Your task to perform on an android device: View the shopping cart on bestbuy.com. Search for razer thresher on bestbuy.com, select the first entry, and add it to the cart. Image 0: 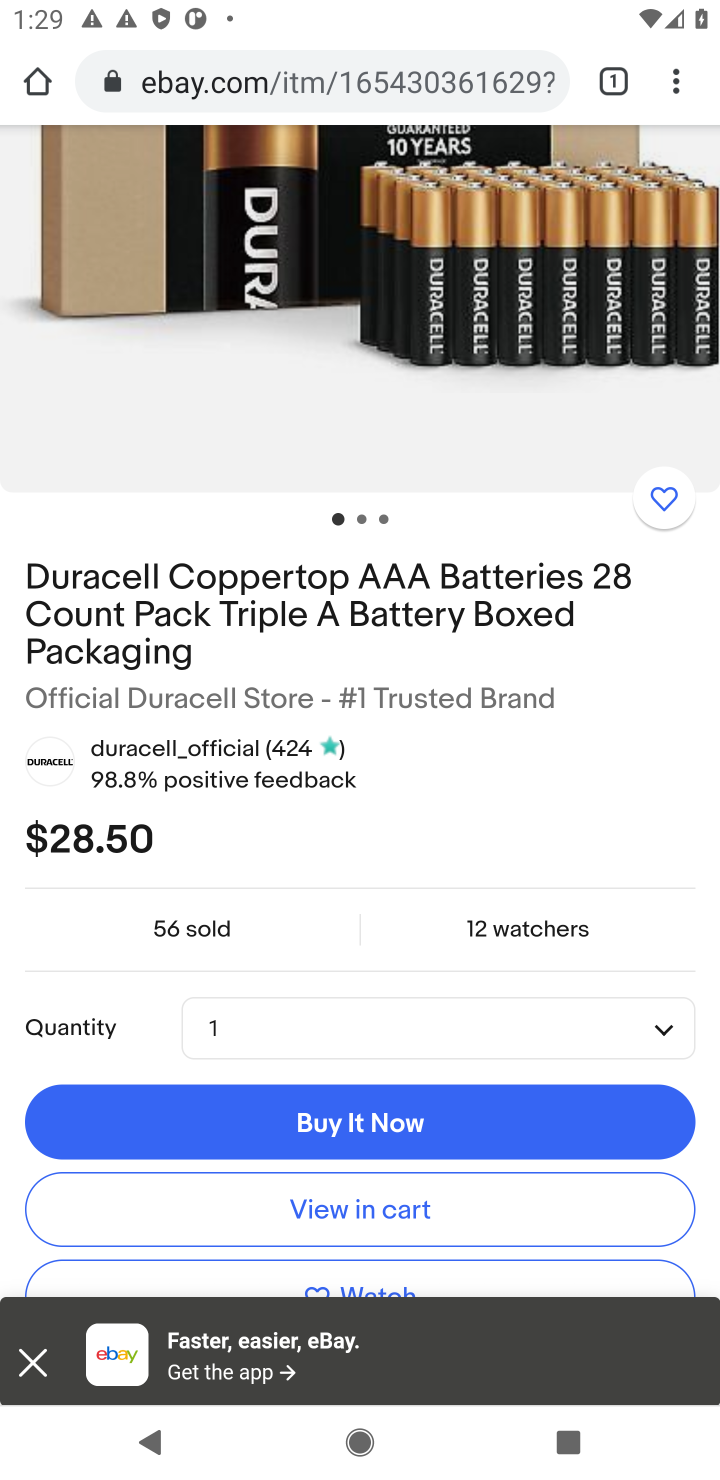
Step 0: press home button
Your task to perform on an android device: View the shopping cart on bestbuy.com. Search for razer thresher on bestbuy.com, select the first entry, and add it to the cart. Image 1: 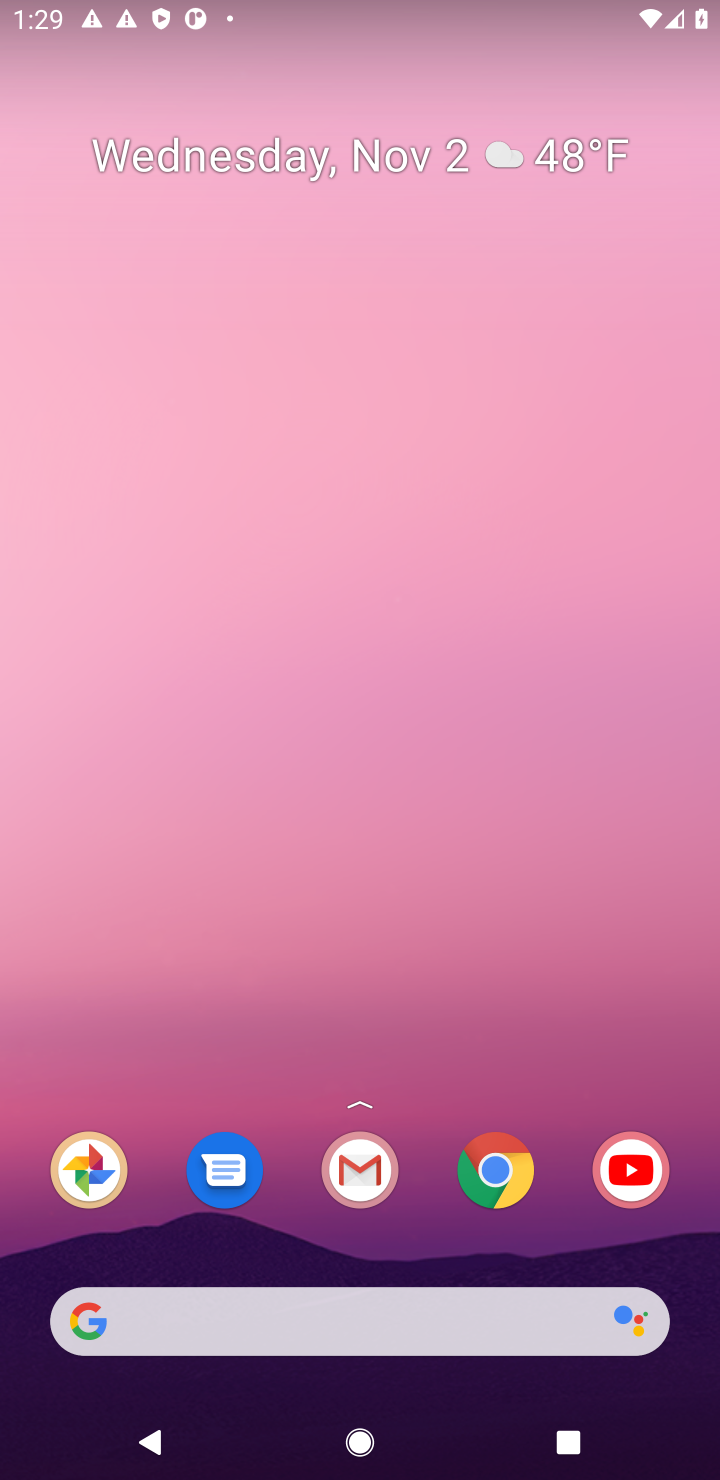
Step 1: drag from (321, 1237) to (402, 338)
Your task to perform on an android device: View the shopping cart on bestbuy.com. Search for razer thresher on bestbuy.com, select the first entry, and add it to the cart. Image 2: 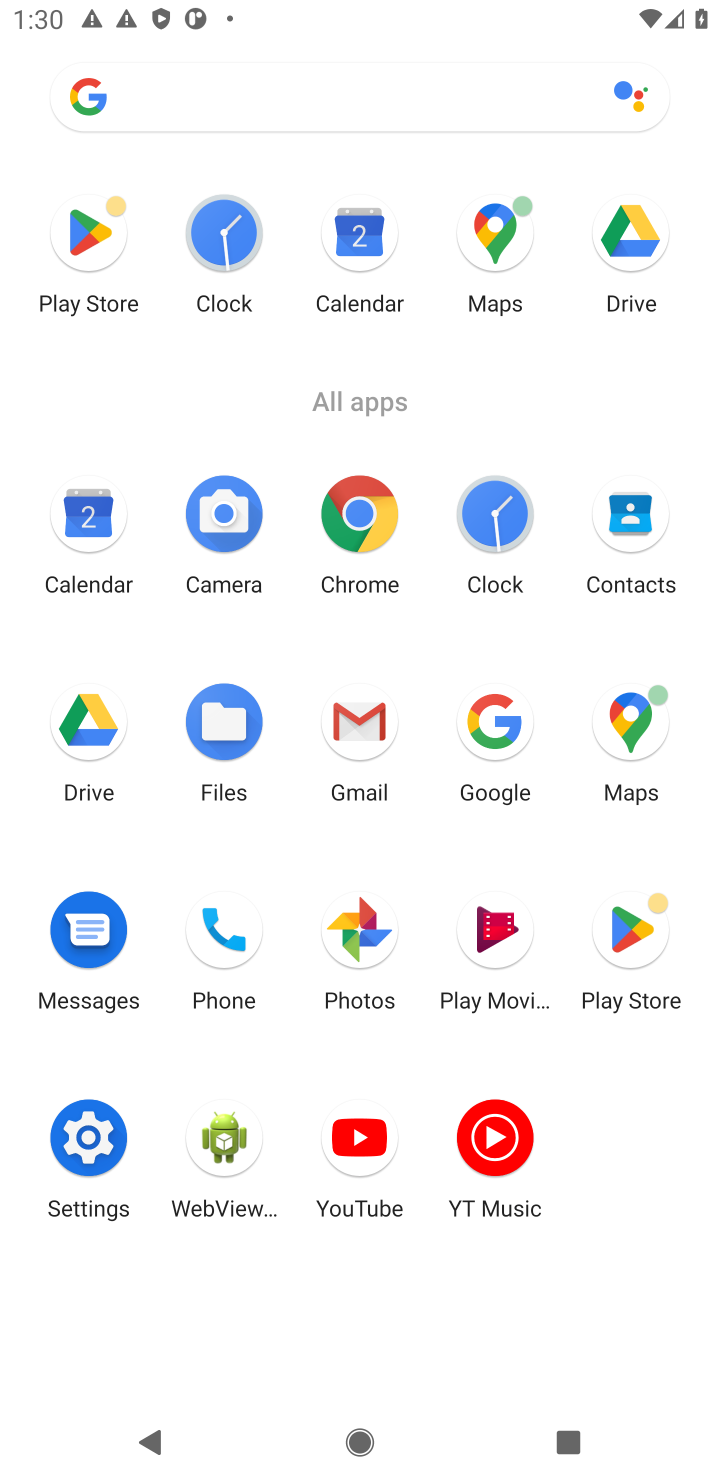
Step 2: click (501, 763)
Your task to perform on an android device: View the shopping cart on bestbuy.com. Search for razer thresher on bestbuy.com, select the first entry, and add it to the cart. Image 3: 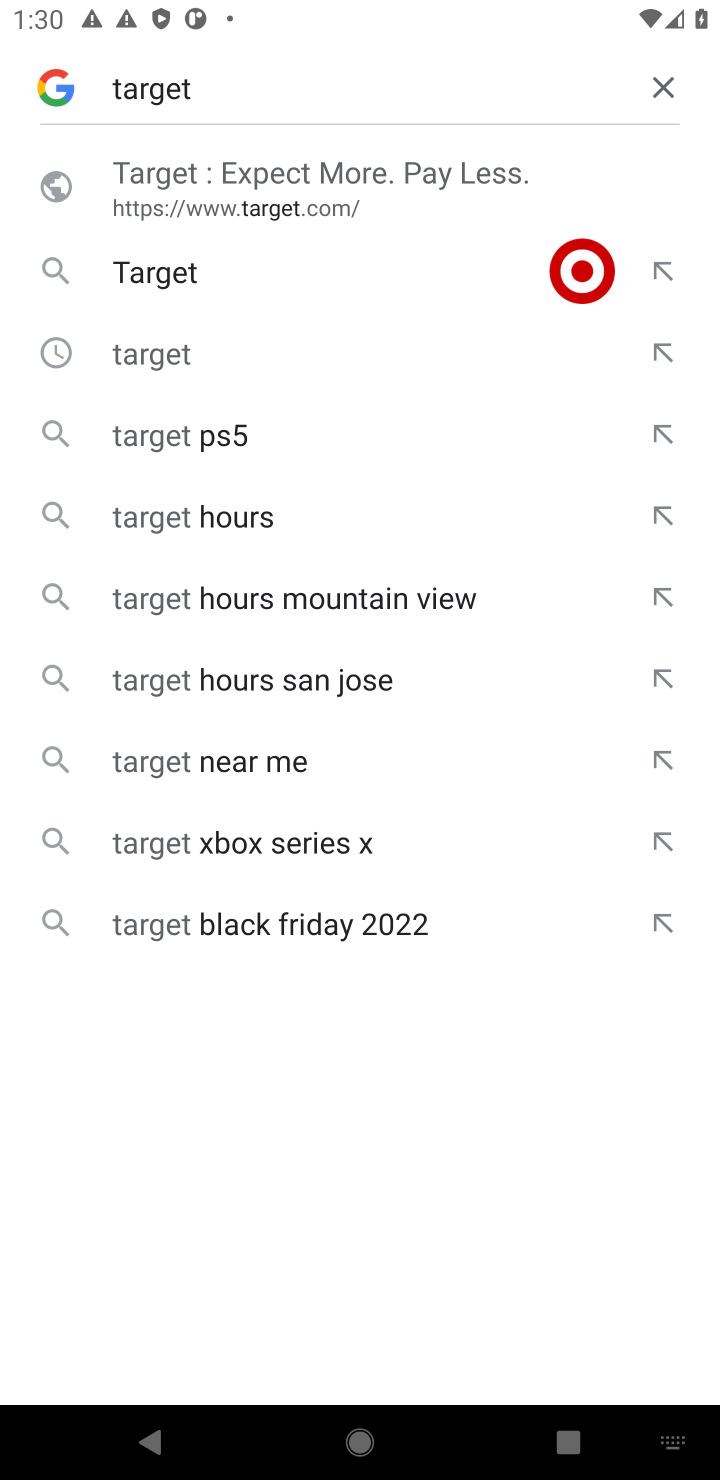
Step 3: click (654, 79)
Your task to perform on an android device: View the shopping cart on bestbuy.com. Search for razer thresher on bestbuy.com, select the first entry, and add it to the cart. Image 4: 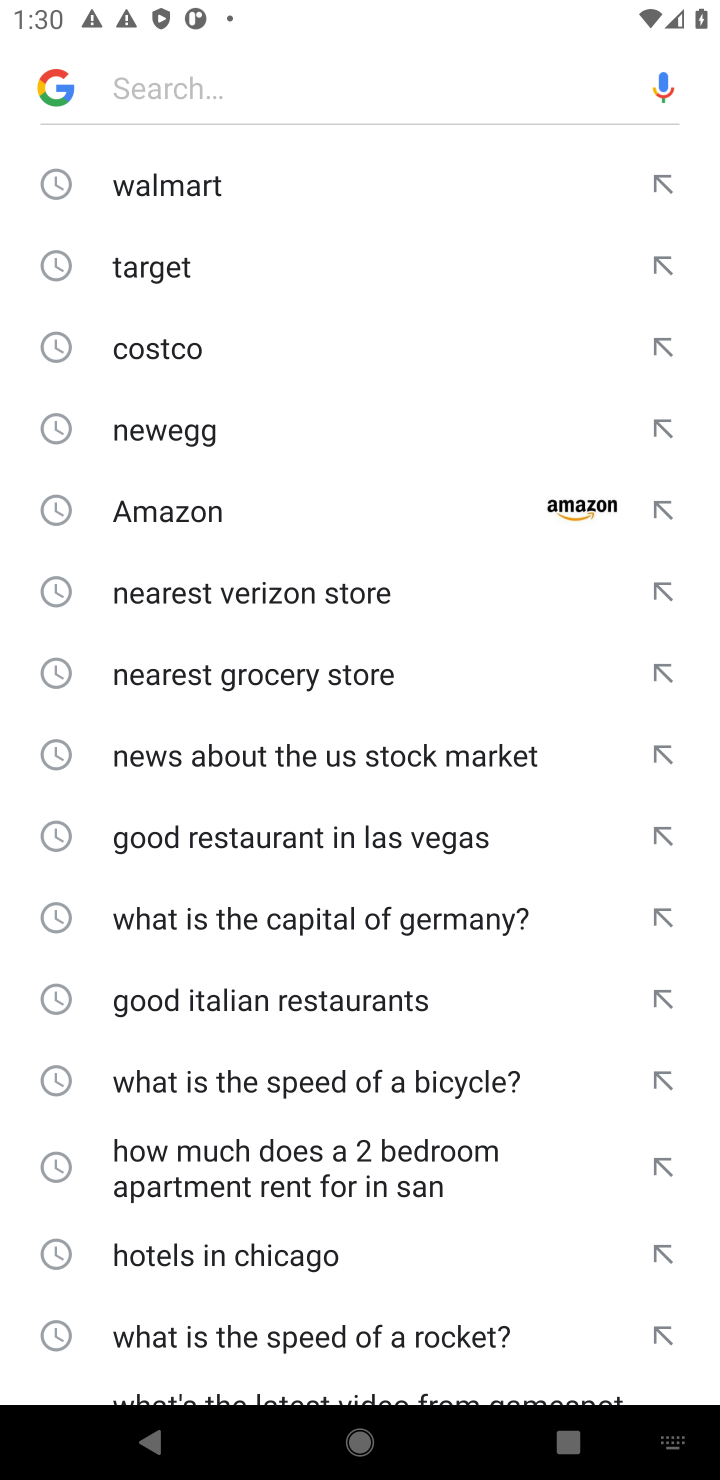
Step 4: type "bestbuy.com"
Your task to perform on an android device: View the shopping cart on bestbuy.com. Search for razer thresher on bestbuy.com, select the first entry, and add it to the cart. Image 5: 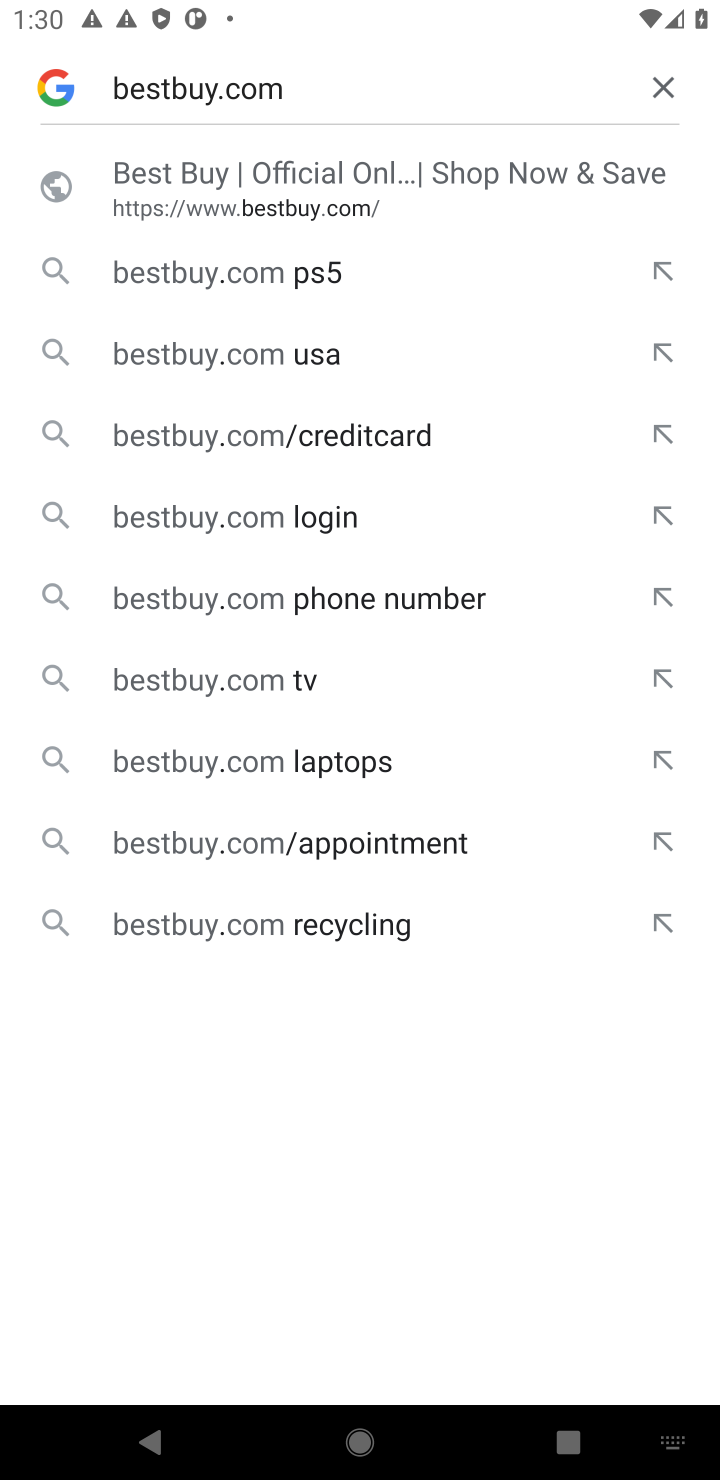
Step 5: click (297, 184)
Your task to perform on an android device: View the shopping cart on bestbuy.com. Search for razer thresher on bestbuy.com, select the first entry, and add it to the cart. Image 6: 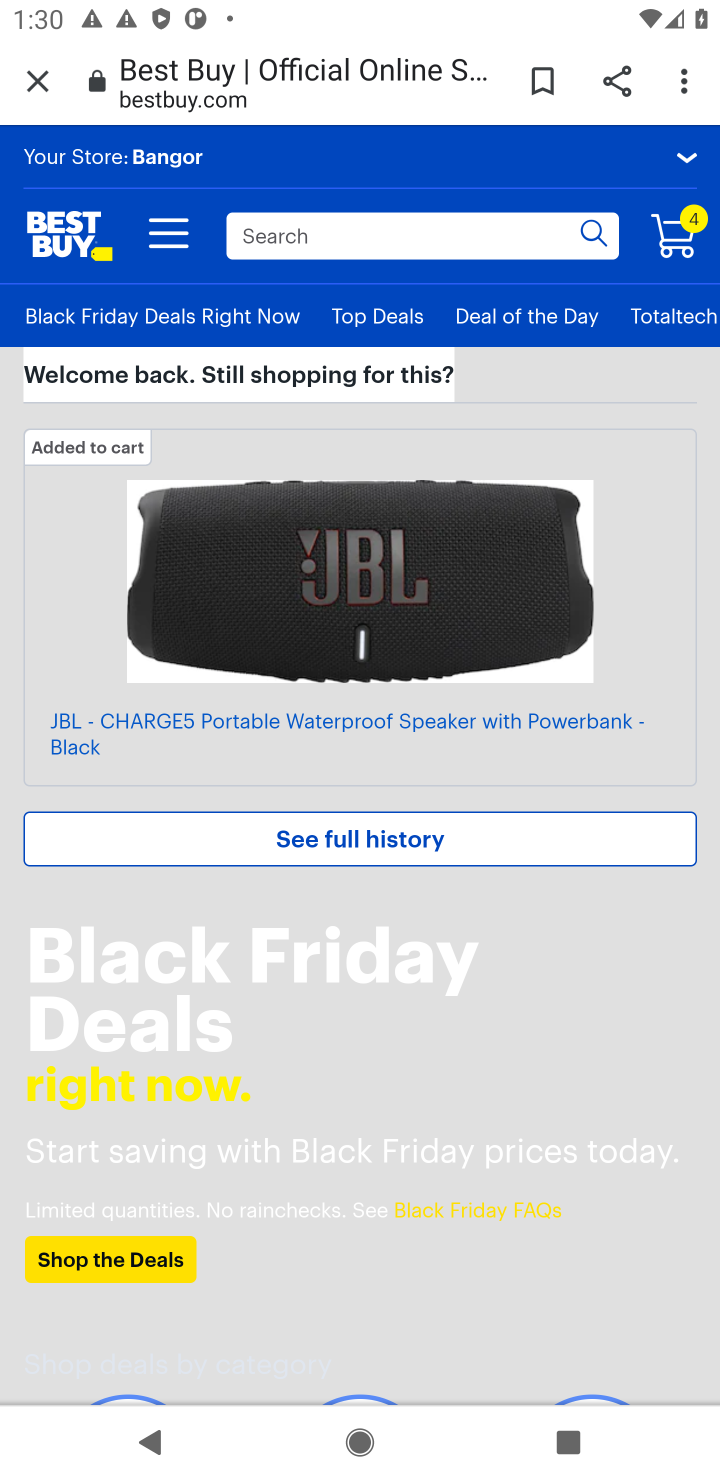
Step 6: click (503, 239)
Your task to perform on an android device: View the shopping cart on bestbuy.com. Search for razer thresher on bestbuy.com, select the first entry, and add it to the cart. Image 7: 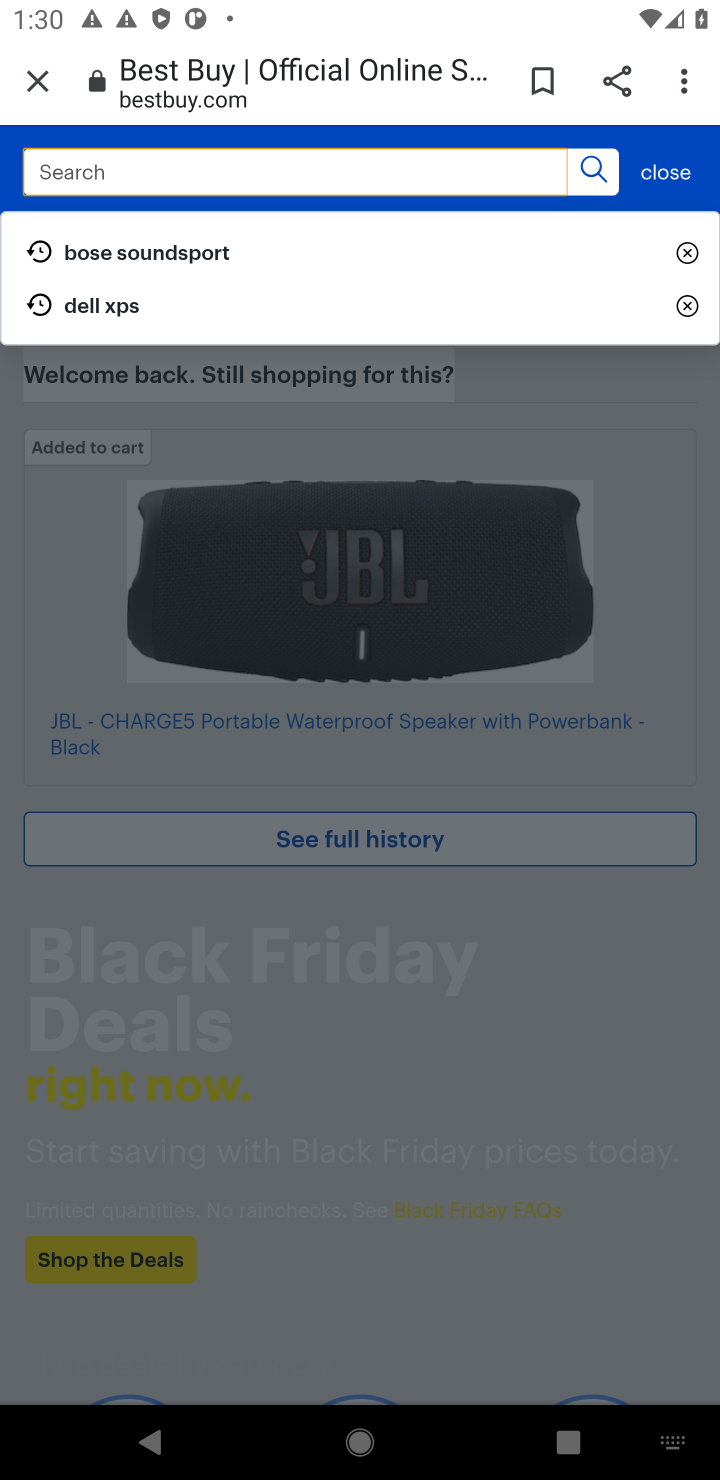
Step 7: type "razer thresher"
Your task to perform on an android device: View the shopping cart on bestbuy.com. Search for razer thresher on bestbuy.com, select the first entry, and add it to the cart. Image 8: 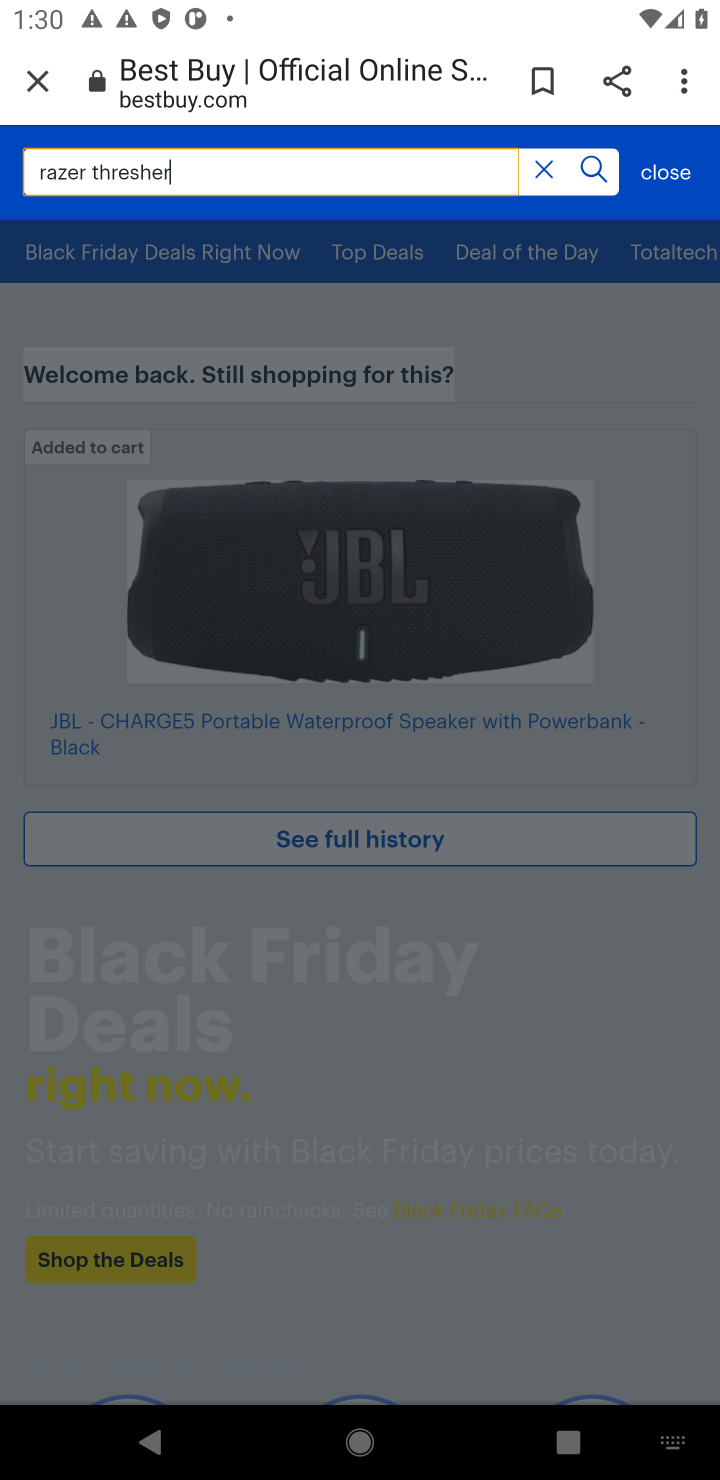
Step 8: click (595, 176)
Your task to perform on an android device: View the shopping cart on bestbuy.com. Search for razer thresher on bestbuy.com, select the first entry, and add it to the cart. Image 9: 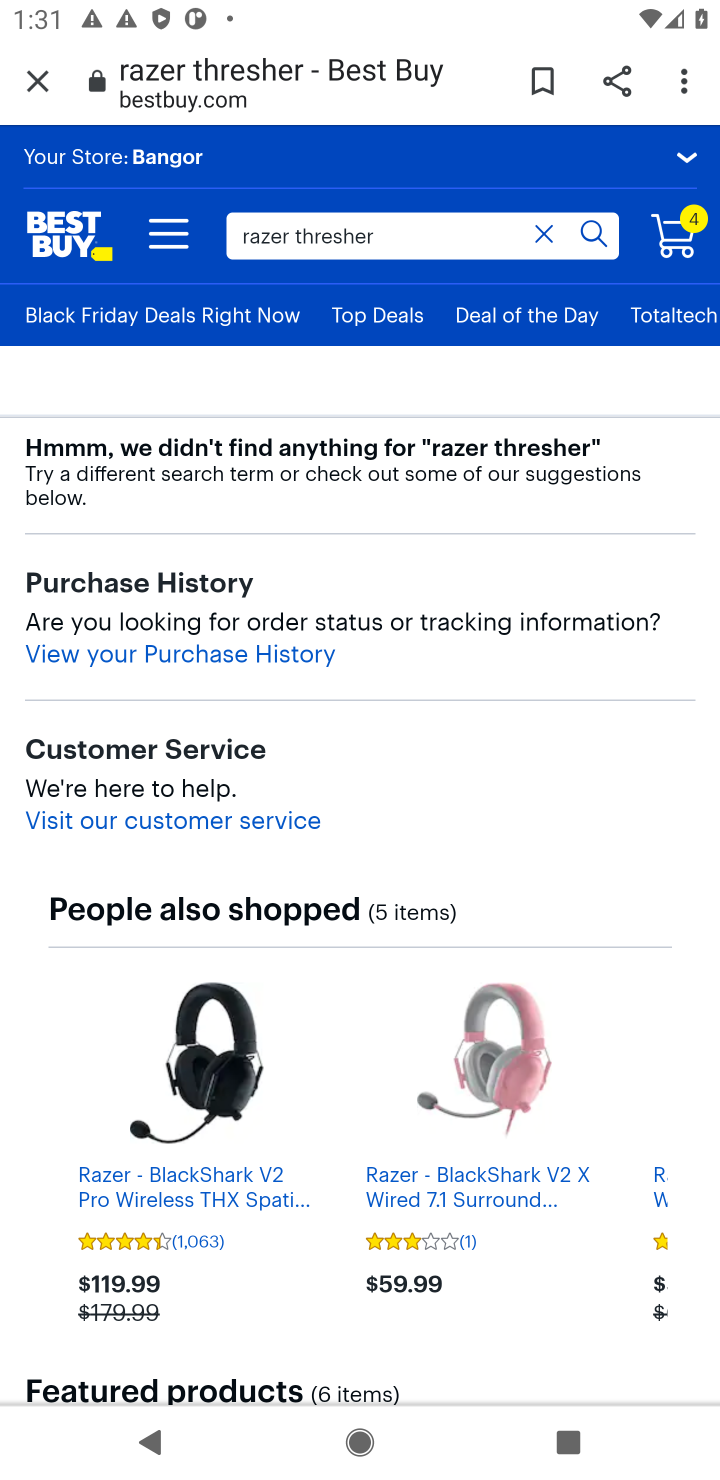
Step 9: drag from (449, 1109) to (459, 436)
Your task to perform on an android device: View the shopping cart on bestbuy.com. Search for razer thresher on bestbuy.com, select the first entry, and add it to the cart. Image 10: 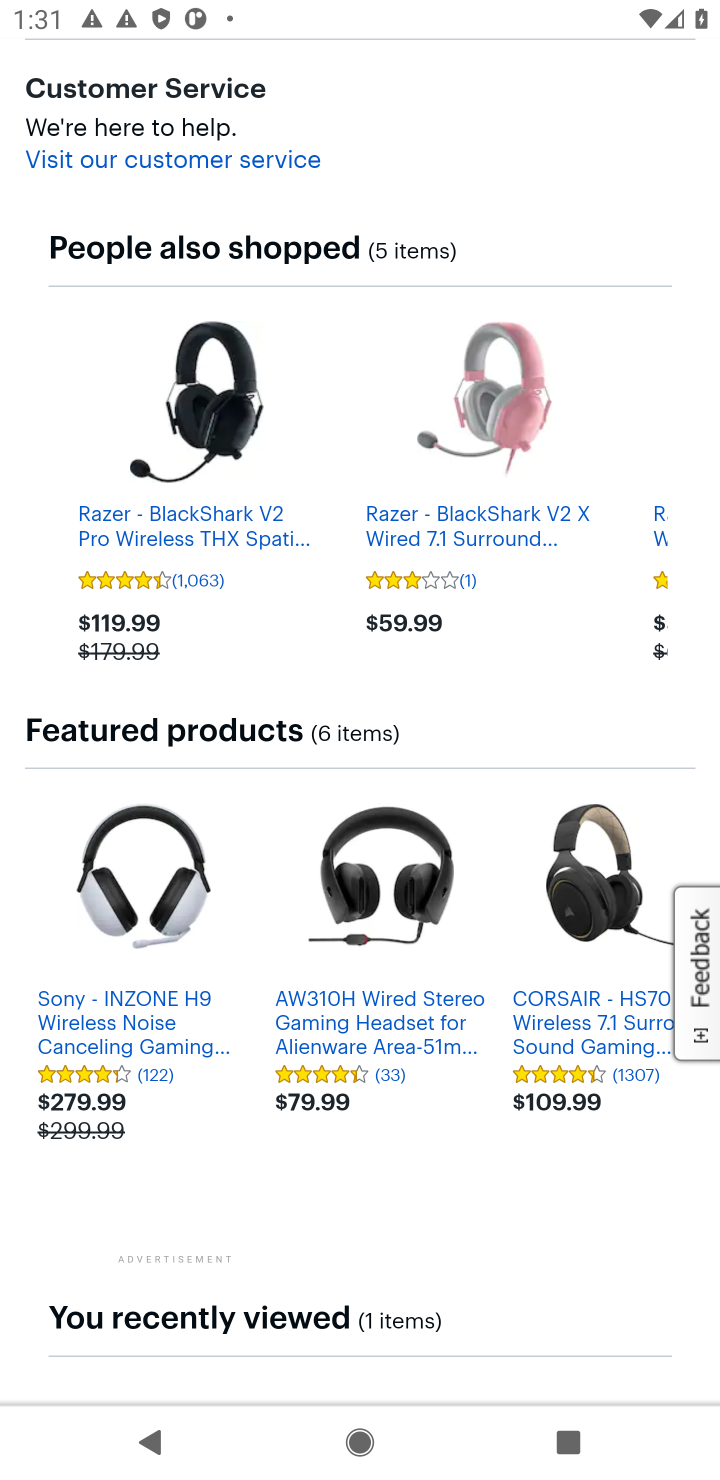
Step 10: click (159, 469)
Your task to perform on an android device: View the shopping cart on bestbuy.com. Search for razer thresher on bestbuy.com, select the first entry, and add it to the cart. Image 11: 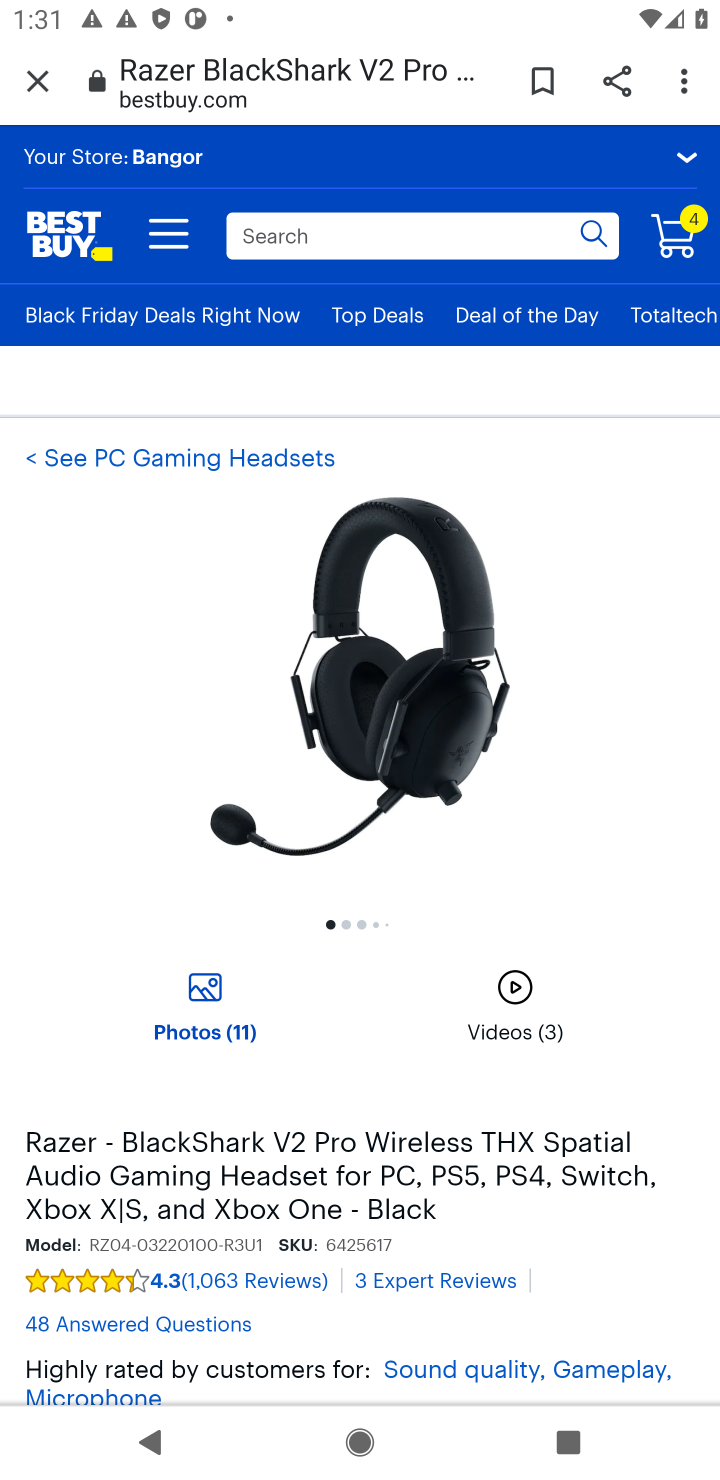
Step 11: drag from (432, 1137) to (423, 427)
Your task to perform on an android device: View the shopping cart on bestbuy.com. Search for razer thresher on bestbuy.com, select the first entry, and add it to the cart. Image 12: 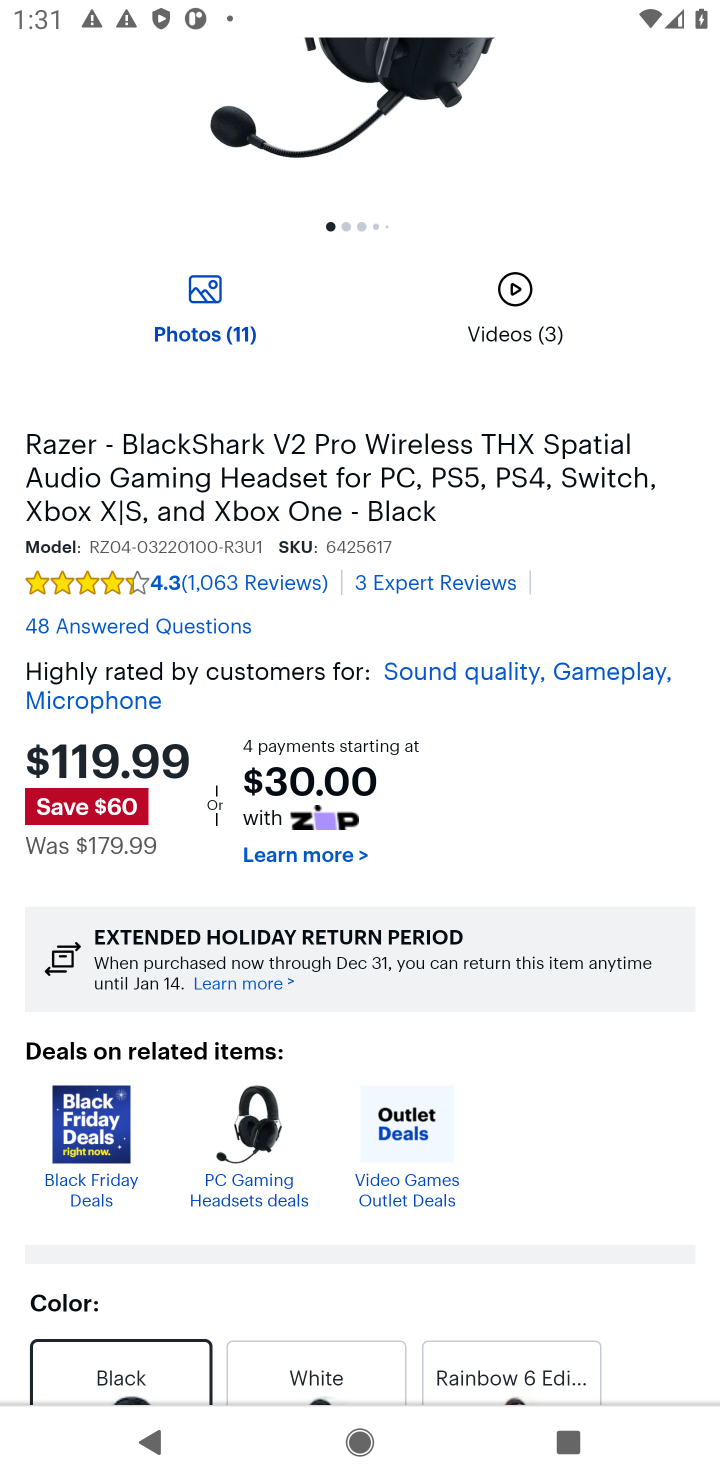
Step 12: drag from (522, 1032) to (515, 496)
Your task to perform on an android device: View the shopping cart on bestbuy.com. Search for razer thresher on bestbuy.com, select the first entry, and add it to the cart. Image 13: 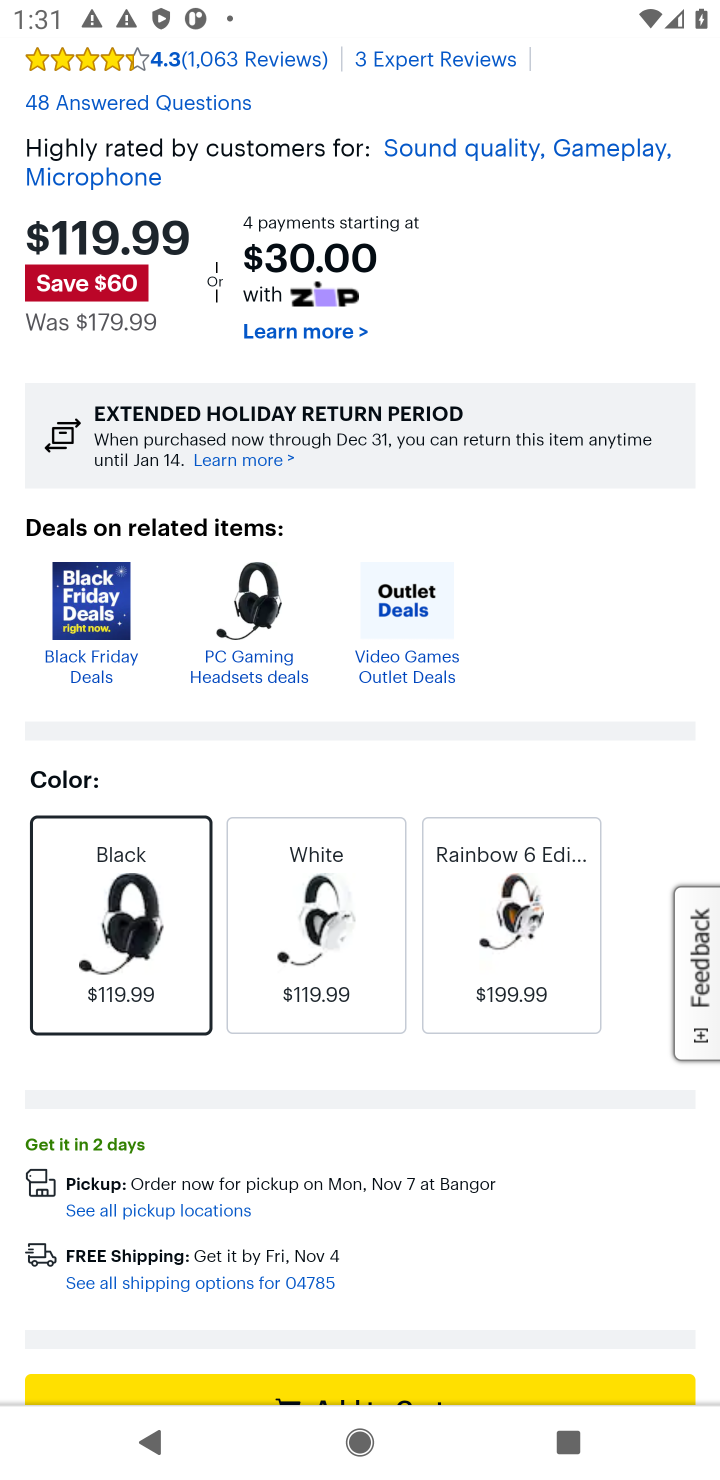
Step 13: drag from (485, 1048) to (463, 531)
Your task to perform on an android device: View the shopping cart on bestbuy.com. Search for razer thresher on bestbuy.com, select the first entry, and add it to the cart. Image 14: 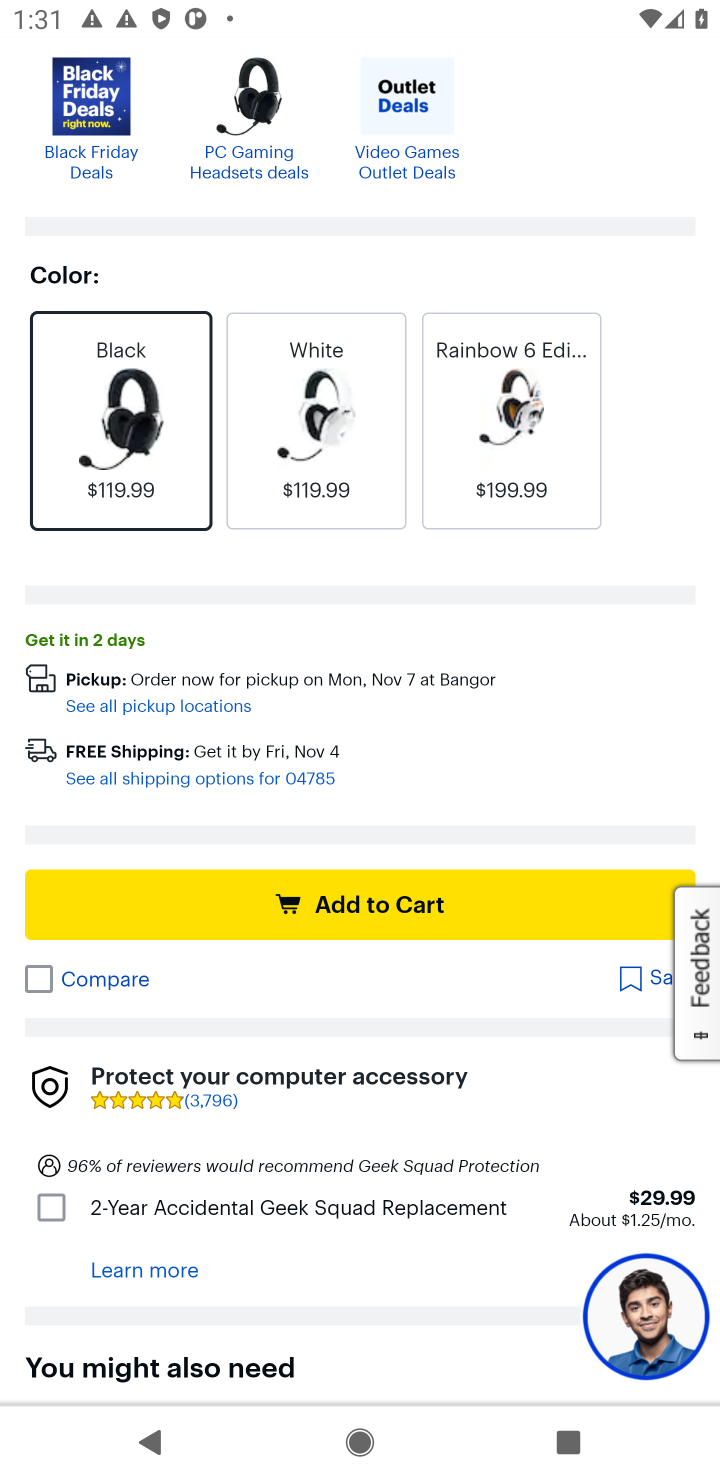
Step 14: click (476, 896)
Your task to perform on an android device: View the shopping cart on bestbuy.com. Search for razer thresher on bestbuy.com, select the first entry, and add it to the cart. Image 15: 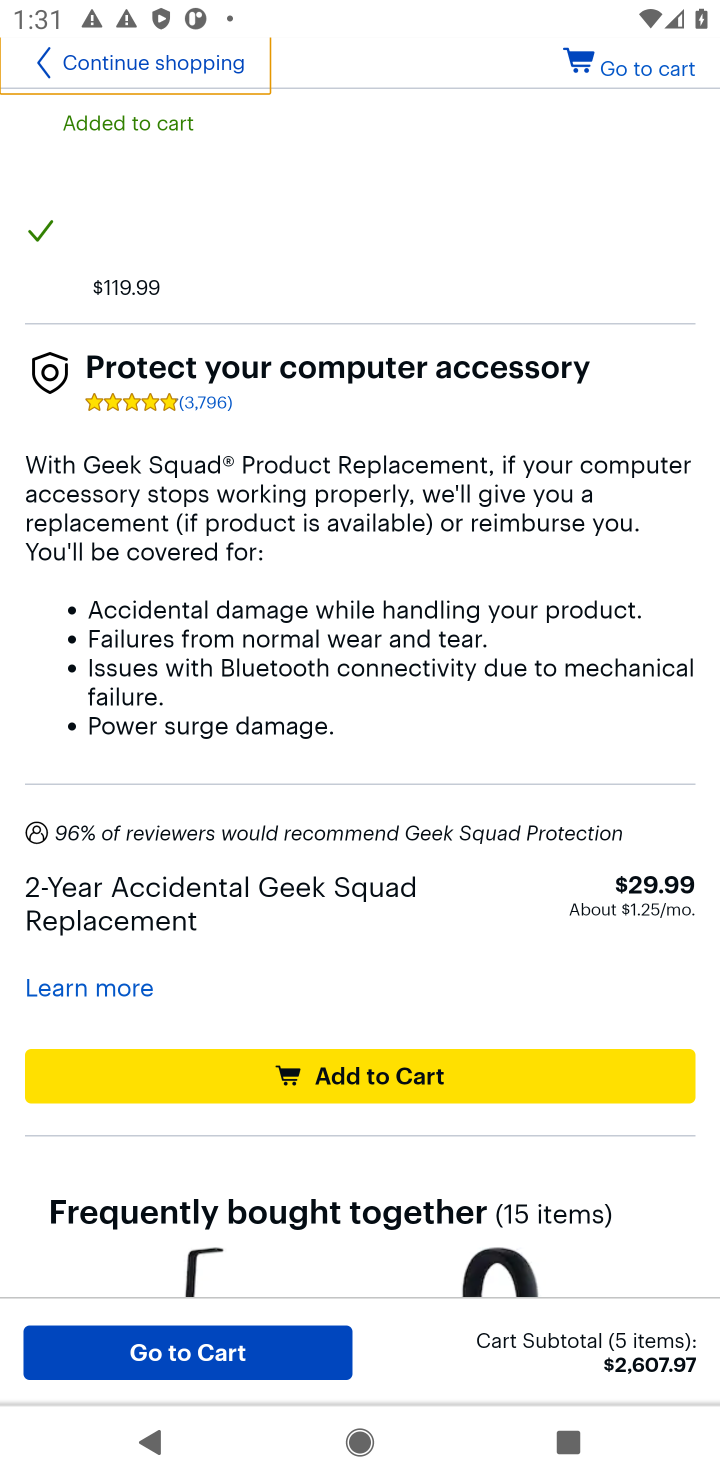
Step 15: task complete